Your task to perform on an android device: open the mobile data screen to see how much data has been used Image 0: 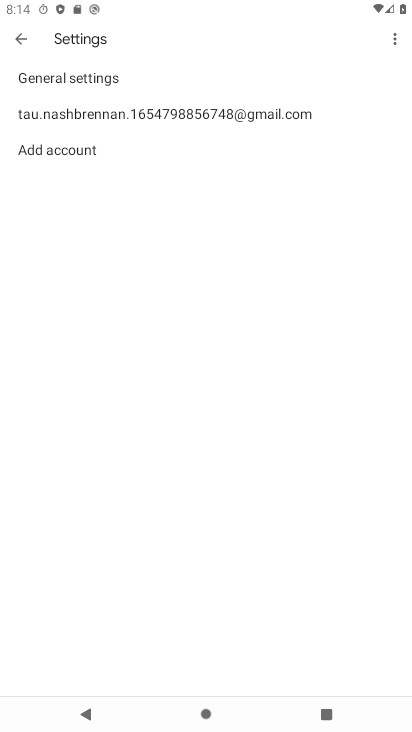
Step 0: press home button
Your task to perform on an android device: open the mobile data screen to see how much data has been used Image 1: 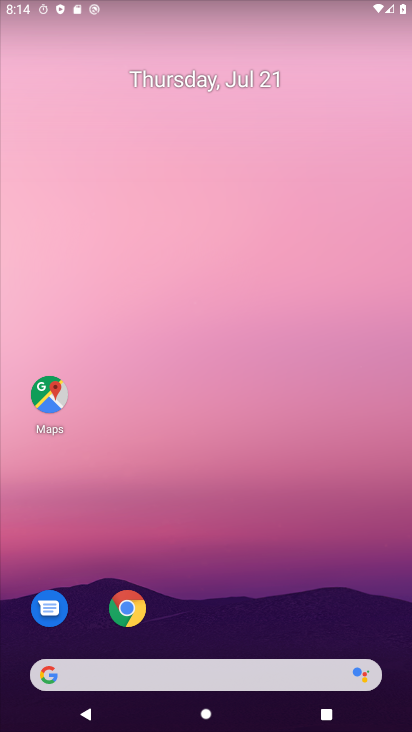
Step 1: drag from (388, 3) to (312, 667)
Your task to perform on an android device: open the mobile data screen to see how much data has been used Image 2: 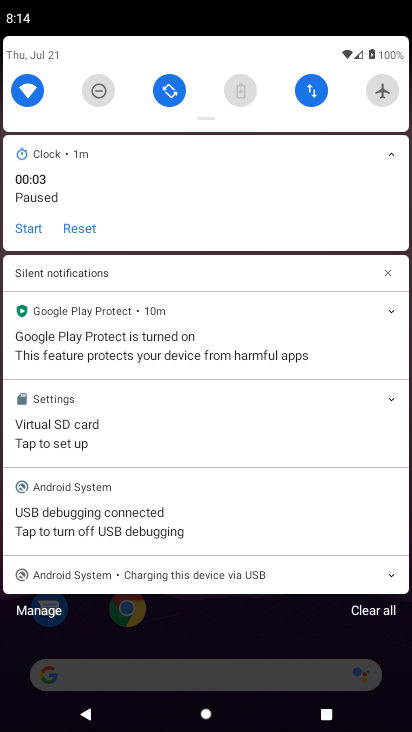
Step 2: drag from (218, 114) to (119, 729)
Your task to perform on an android device: open the mobile data screen to see how much data has been used Image 3: 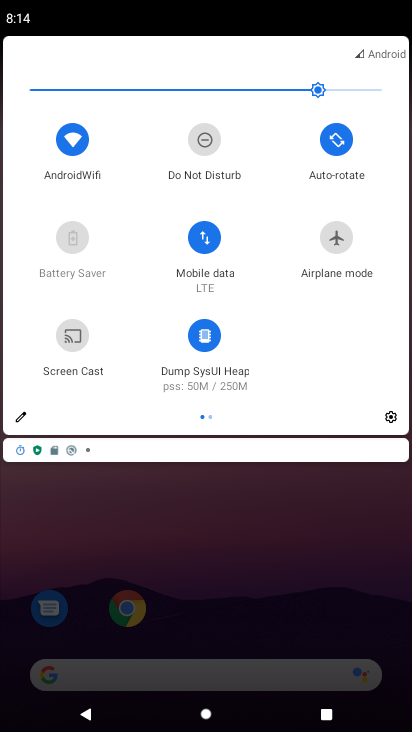
Step 3: click (221, 223)
Your task to perform on an android device: open the mobile data screen to see how much data has been used Image 4: 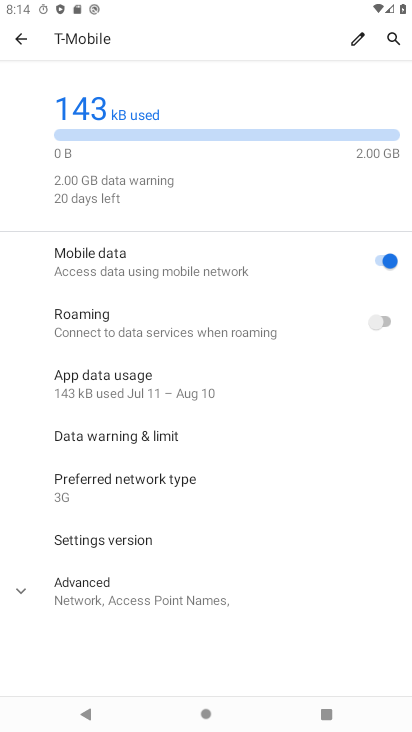
Step 4: task complete